Your task to perform on an android device: Open notification settings Image 0: 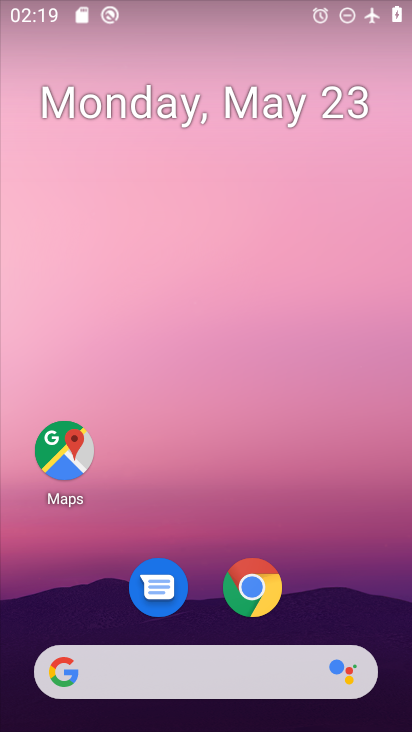
Step 0: drag from (367, 618) to (356, 152)
Your task to perform on an android device: Open notification settings Image 1: 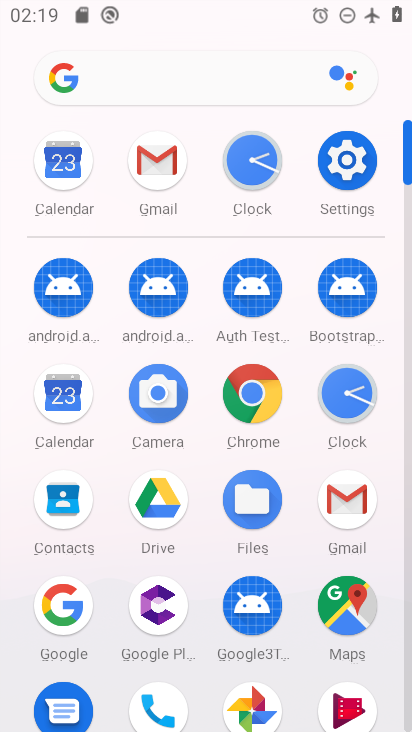
Step 1: click (351, 188)
Your task to perform on an android device: Open notification settings Image 2: 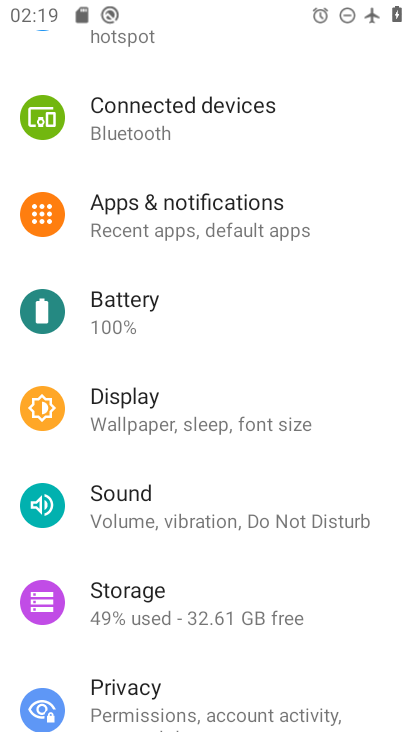
Step 2: click (272, 253)
Your task to perform on an android device: Open notification settings Image 3: 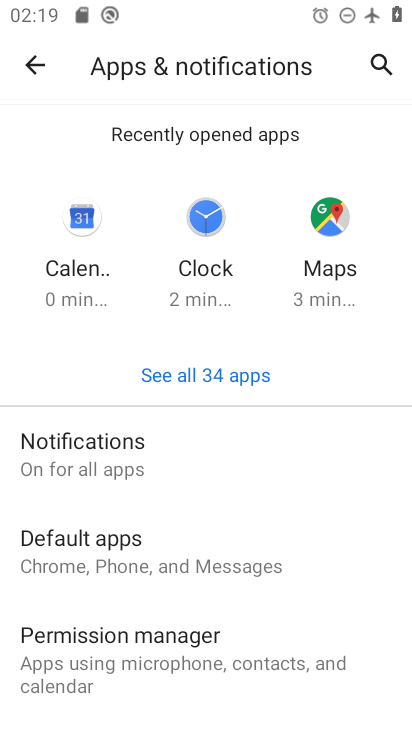
Step 3: task complete